Your task to perform on an android device: Search for Italian restaurants on Maps Image 0: 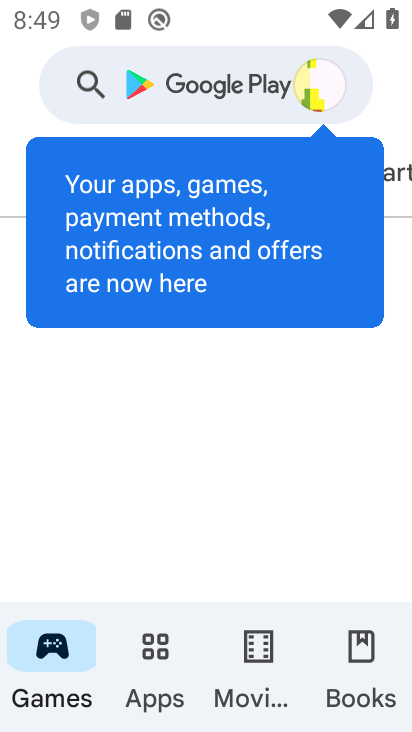
Step 0: press home button
Your task to perform on an android device: Search for Italian restaurants on Maps Image 1: 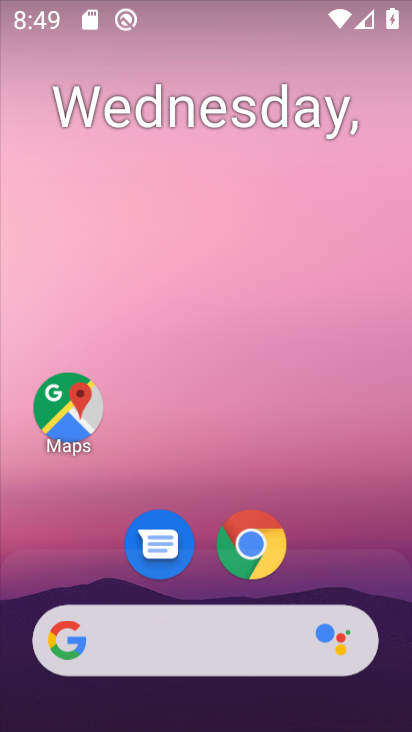
Step 1: click (59, 411)
Your task to perform on an android device: Search for Italian restaurants on Maps Image 2: 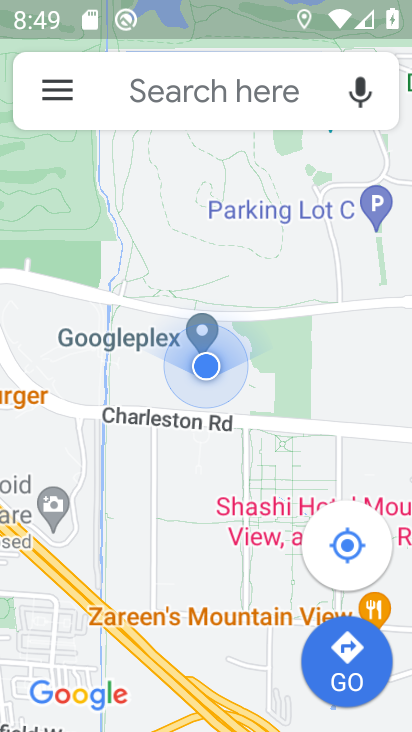
Step 2: click (250, 111)
Your task to perform on an android device: Search for Italian restaurants on Maps Image 3: 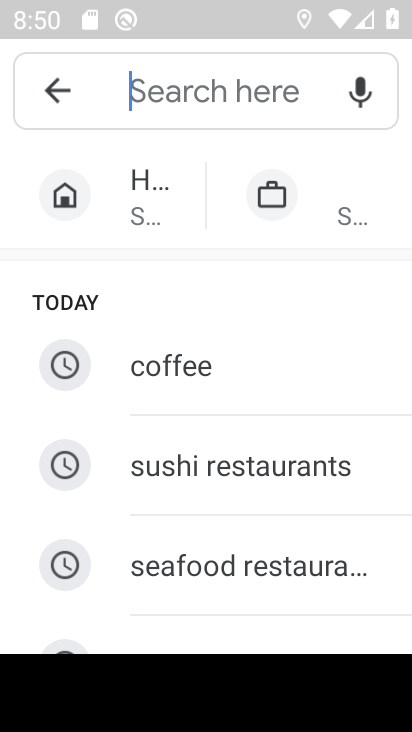
Step 3: type "Italian testaurants"
Your task to perform on an android device: Search for Italian restaurants on Maps Image 4: 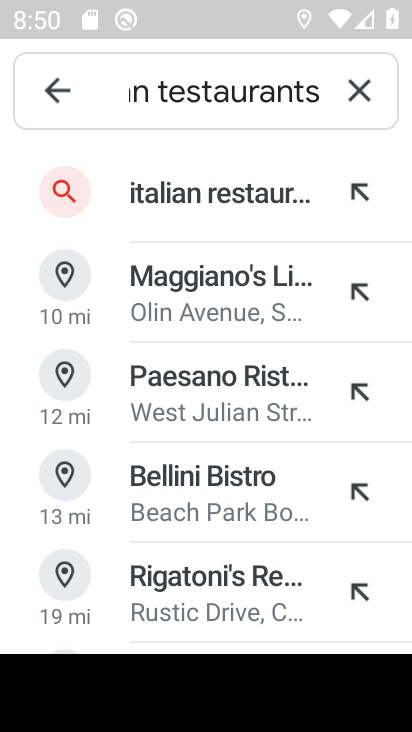
Step 4: press enter
Your task to perform on an android device: Search for Italian restaurants on Maps Image 5: 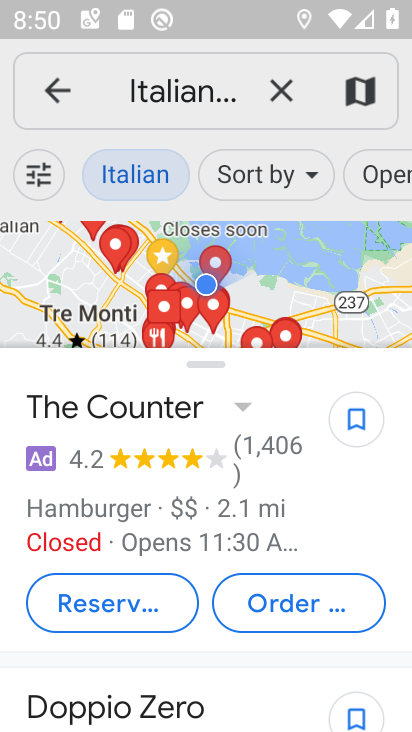
Step 5: task complete